Your task to perform on an android device: toggle javascript in the chrome app Image 0: 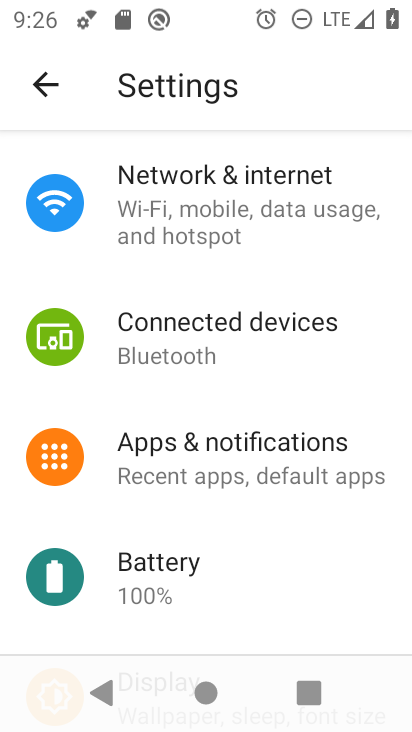
Step 0: press home button
Your task to perform on an android device: toggle javascript in the chrome app Image 1: 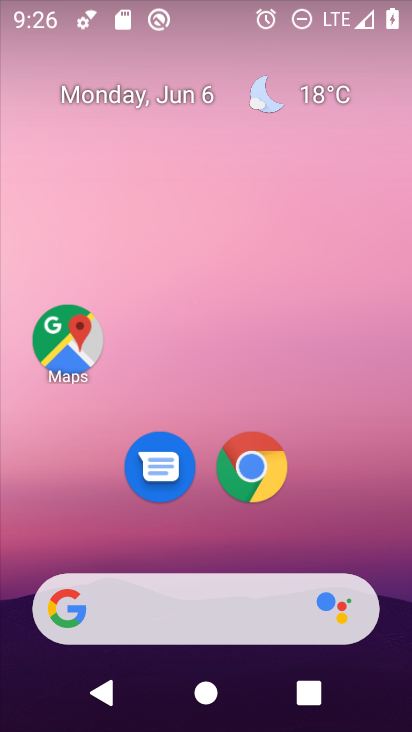
Step 1: drag from (376, 502) to (409, 130)
Your task to perform on an android device: toggle javascript in the chrome app Image 2: 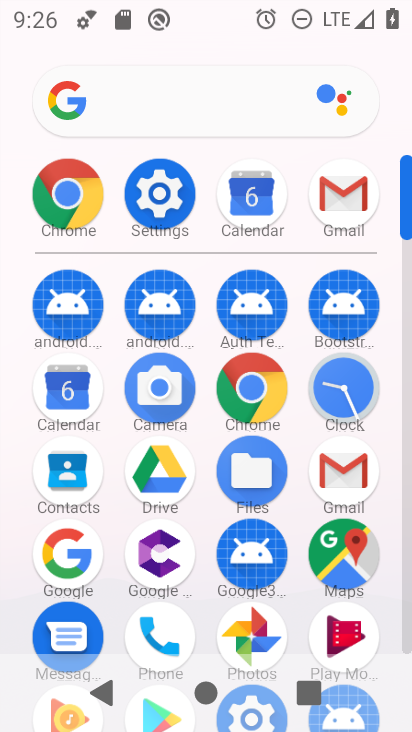
Step 2: click (268, 400)
Your task to perform on an android device: toggle javascript in the chrome app Image 3: 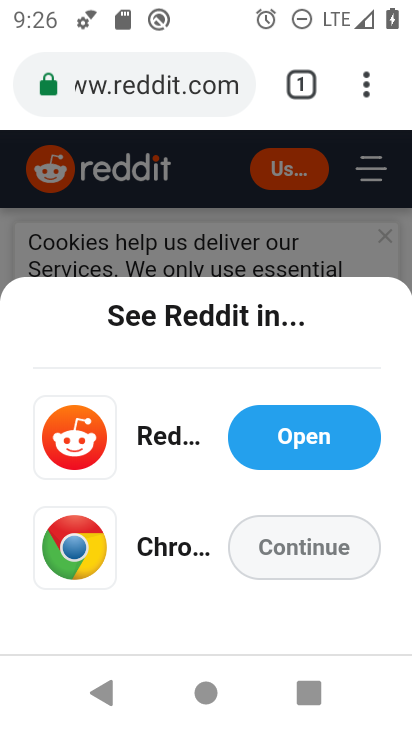
Step 3: click (367, 90)
Your task to perform on an android device: toggle javascript in the chrome app Image 4: 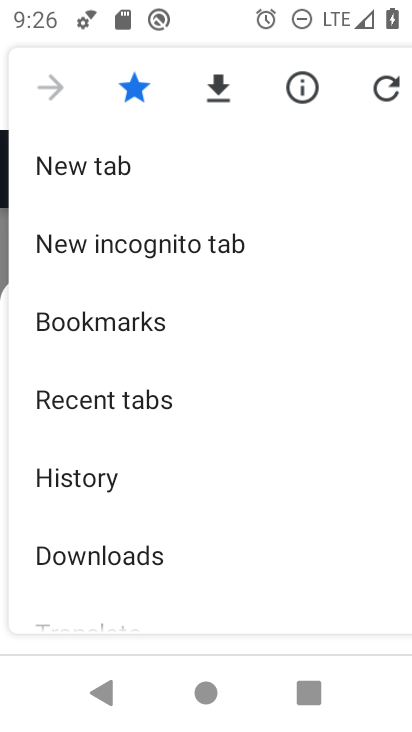
Step 4: drag from (295, 480) to (346, 265)
Your task to perform on an android device: toggle javascript in the chrome app Image 5: 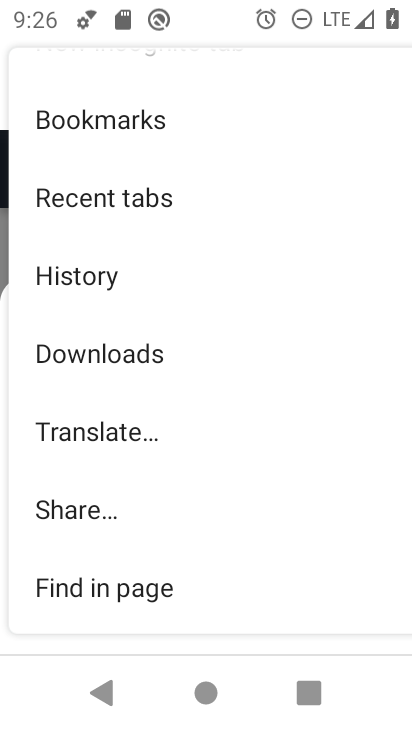
Step 5: drag from (303, 471) to (309, 257)
Your task to perform on an android device: toggle javascript in the chrome app Image 6: 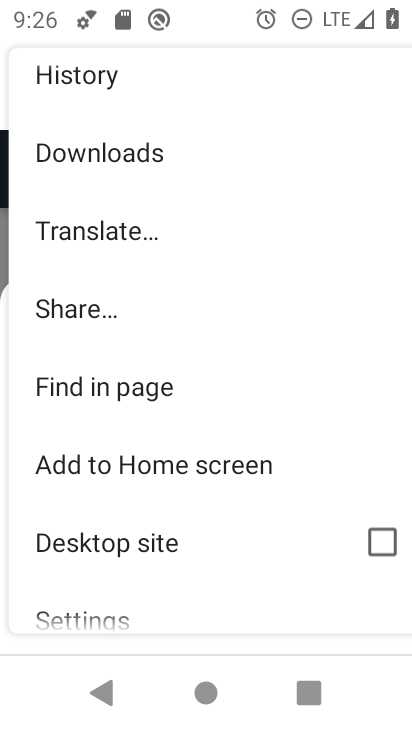
Step 6: drag from (257, 524) to (284, 290)
Your task to perform on an android device: toggle javascript in the chrome app Image 7: 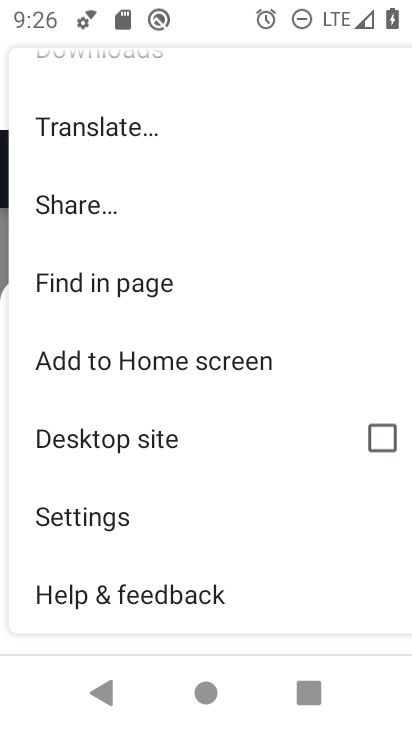
Step 7: click (212, 523)
Your task to perform on an android device: toggle javascript in the chrome app Image 8: 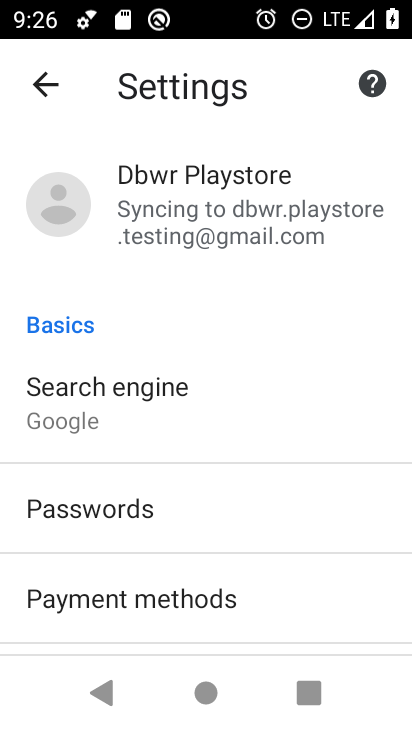
Step 8: drag from (299, 523) to (307, 372)
Your task to perform on an android device: toggle javascript in the chrome app Image 9: 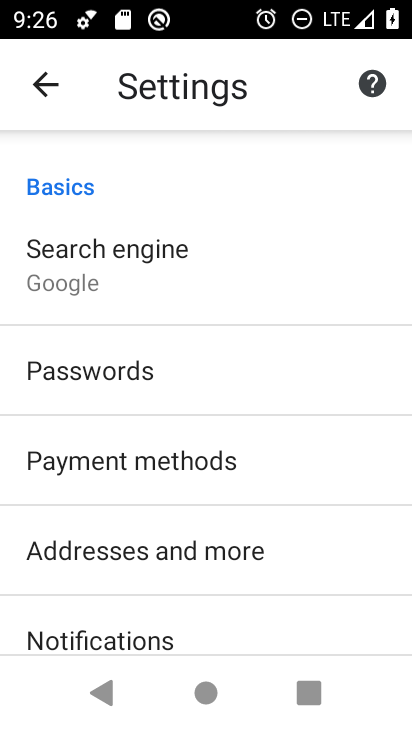
Step 9: drag from (356, 539) to (337, 376)
Your task to perform on an android device: toggle javascript in the chrome app Image 10: 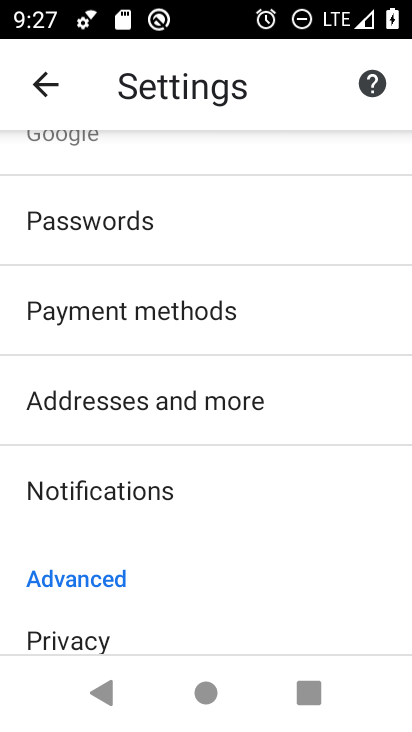
Step 10: drag from (319, 513) to (351, 379)
Your task to perform on an android device: toggle javascript in the chrome app Image 11: 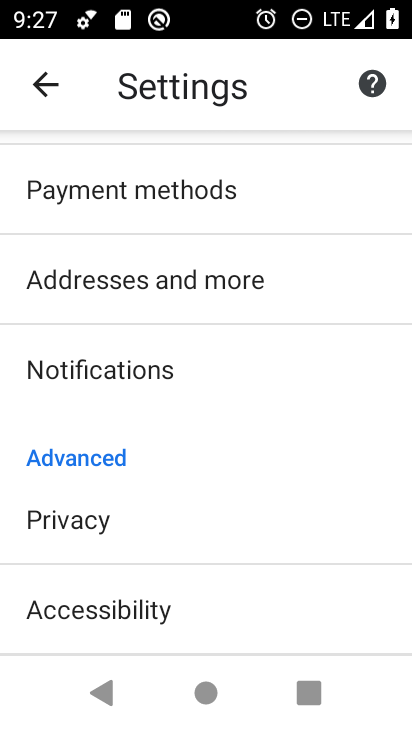
Step 11: drag from (348, 493) to (357, 356)
Your task to perform on an android device: toggle javascript in the chrome app Image 12: 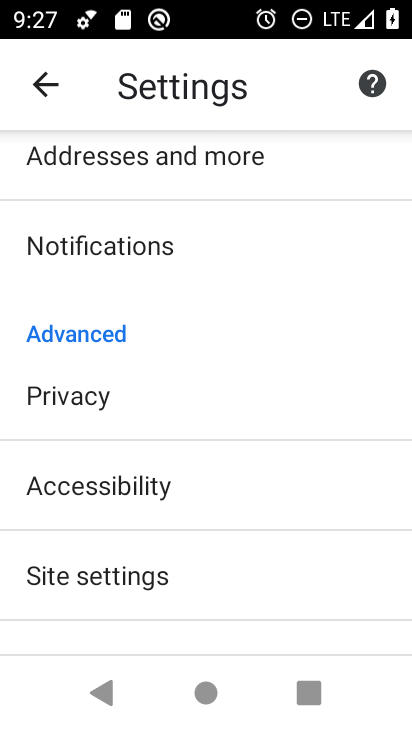
Step 12: drag from (319, 517) to (322, 327)
Your task to perform on an android device: toggle javascript in the chrome app Image 13: 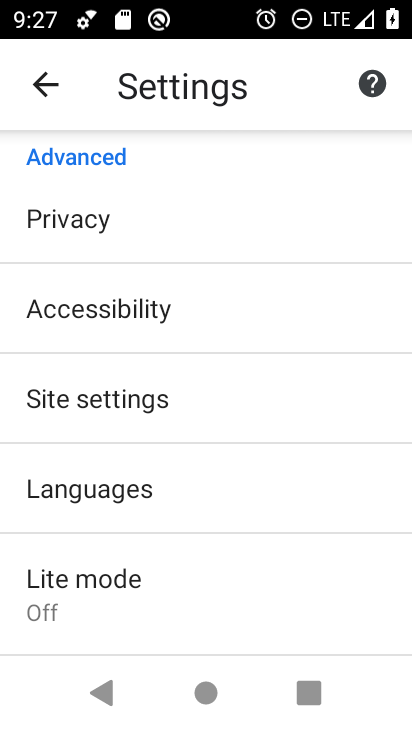
Step 13: drag from (321, 524) to (308, 384)
Your task to perform on an android device: toggle javascript in the chrome app Image 14: 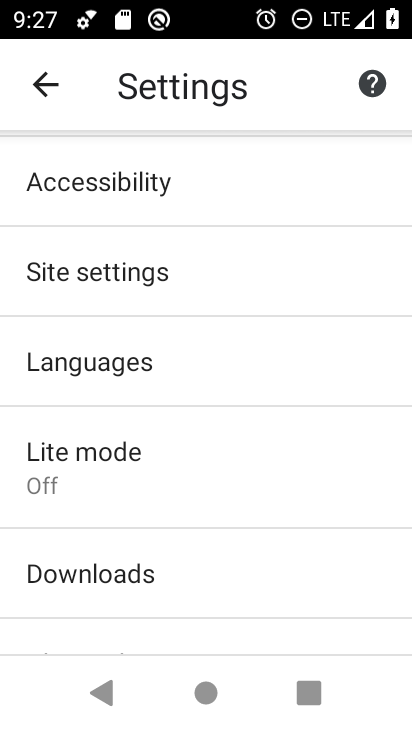
Step 14: click (209, 278)
Your task to perform on an android device: toggle javascript in the chrome app Image 15: 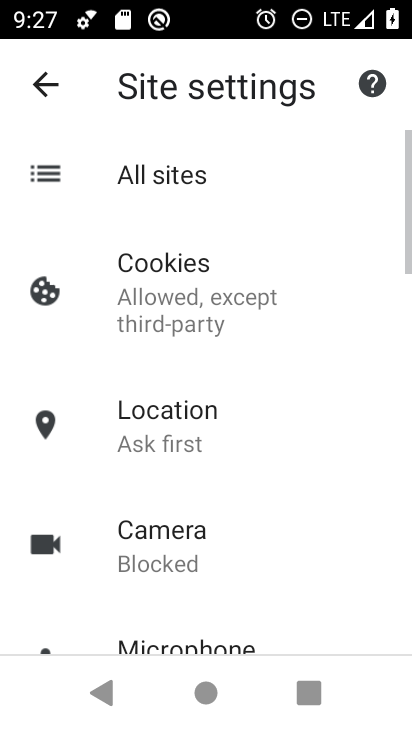
Step 15: drag from (302, 524) to (304, 370)
Your task to perform on an android device: toggle javascript in the chrome app Image 16: 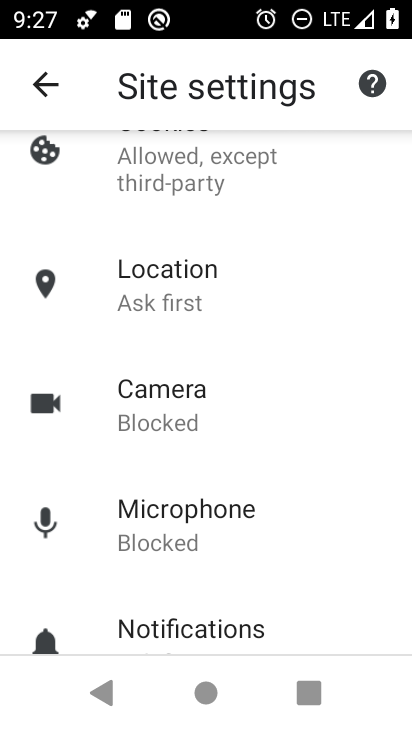
Step 16: drag from (314, 547) to (314, 376)
Your task to perform on an android device: toggle javascript in the chrome app Image 17: 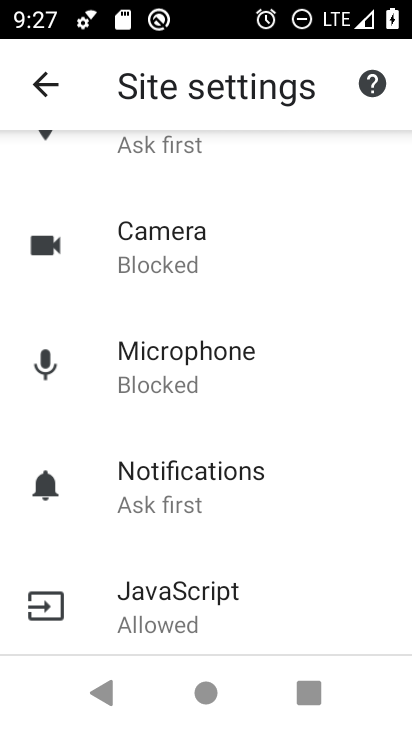
Step 17: drag from (307, 534) to (311, 340)
Your task to perform on an android device: toggle javascript in the chrome app Image 18: 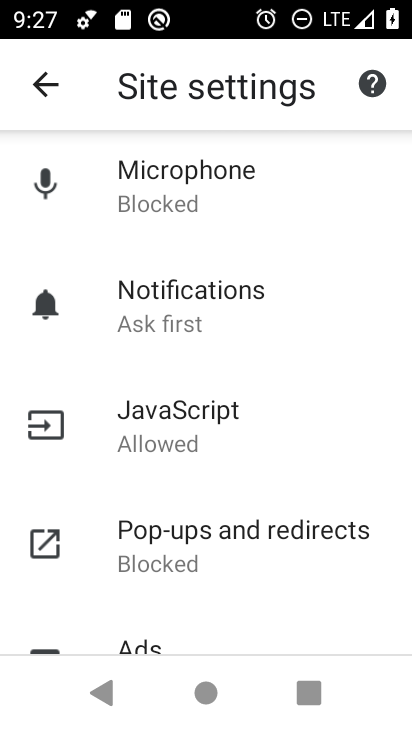
Step 18: click (223, 429)
Your task to perform on an android device: toggle javascript in the chrome app Image 19: 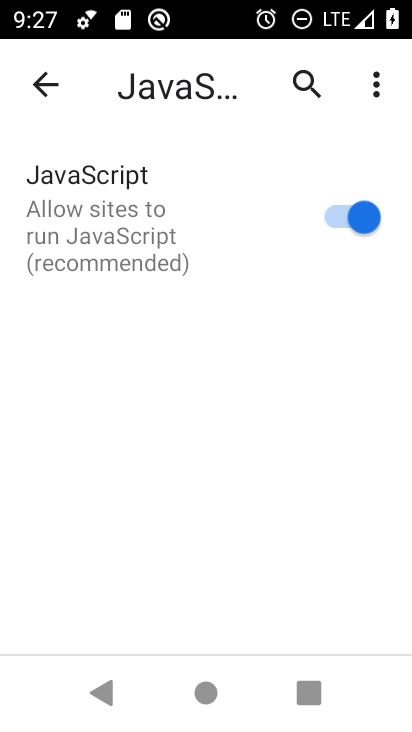
Step 19: click (378, 211)
Your task to perform on an android device: toggle javascript in the chrome app Image 20: 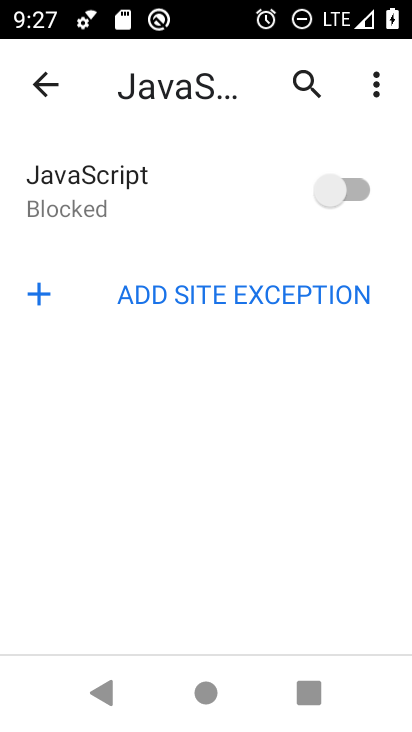
Step 20: task complete